Your task to perform on an android device: toggle notifications settings in the gmail app Image 0: 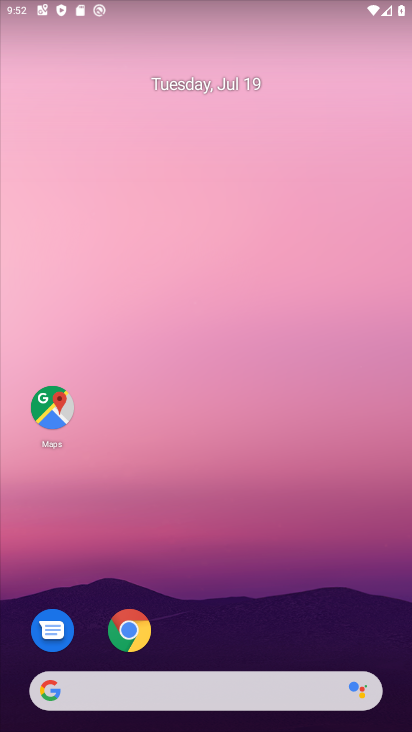
Step 0: drag from (206, 690) to (236, 165)
Your task to perform on an android device: toggle notifications settings in the gmail app Image 1: 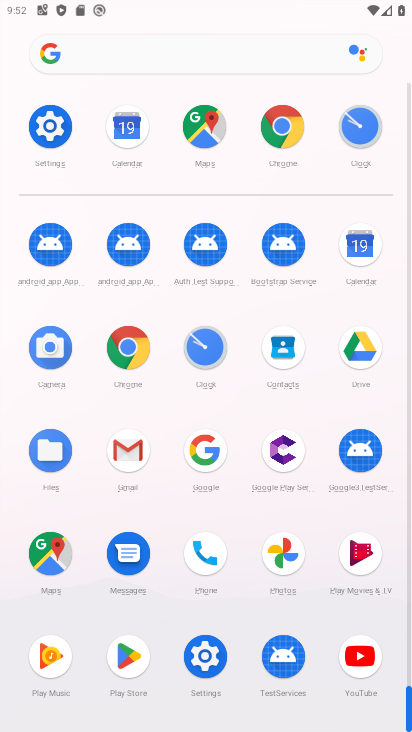
Step 1: click (122, 457)
Your task to perform on an android device: toggle notifications settings in the gmail app Image 2: 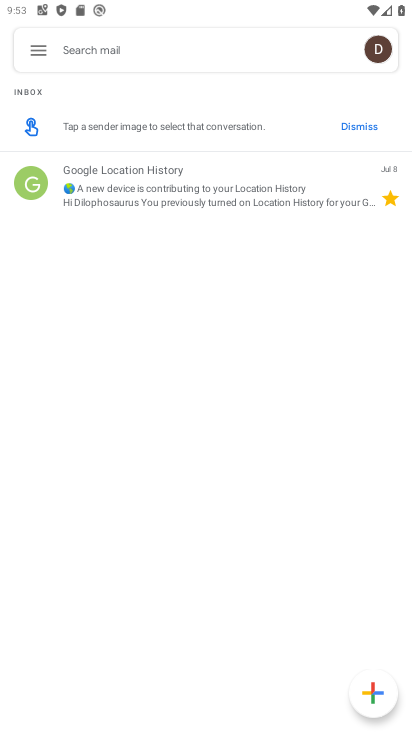
Step 2: click (38, 50)
Your task to perform on an android device: toggle notifications settings in the gmail app Image 3: 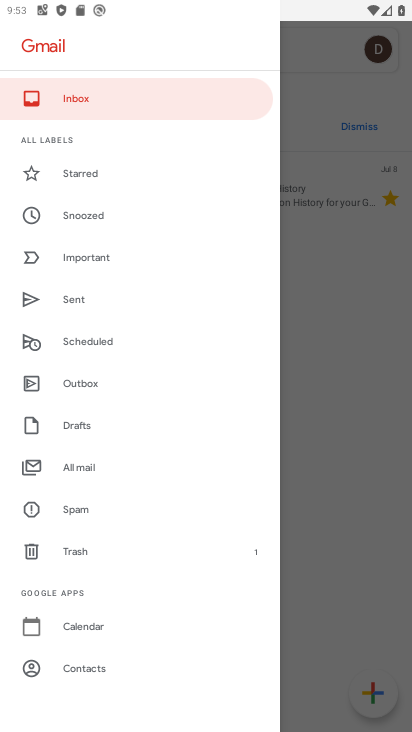
Step 3: drag from (101, 538) to (178, 174)
Your task to perform on an android device: toggle notifications settings in the gmail app Image 4: 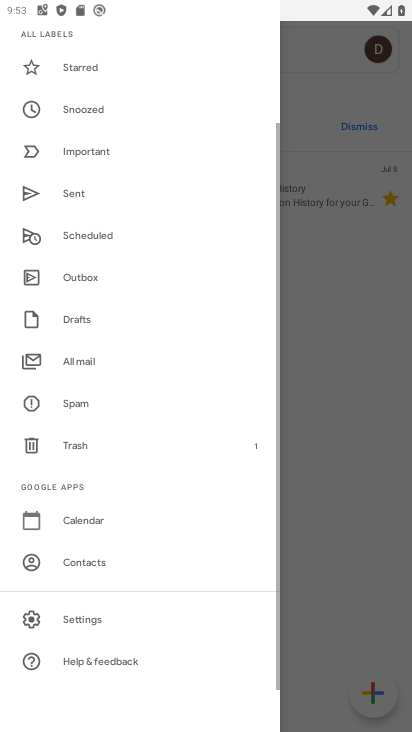
Step 4: click (104, 623)
Your task to perform on an android device: toggle notifications settings in the gmail app Image 5: 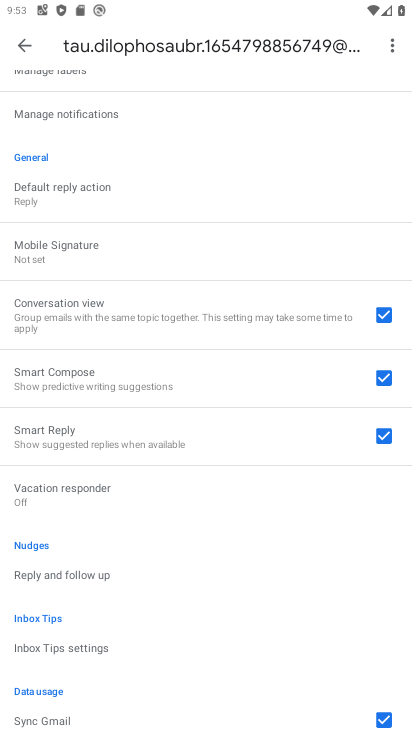
Step 5: click (27, 42)
Your task to perform on an android device: toggle notifications settings in the gmail app Image 6: 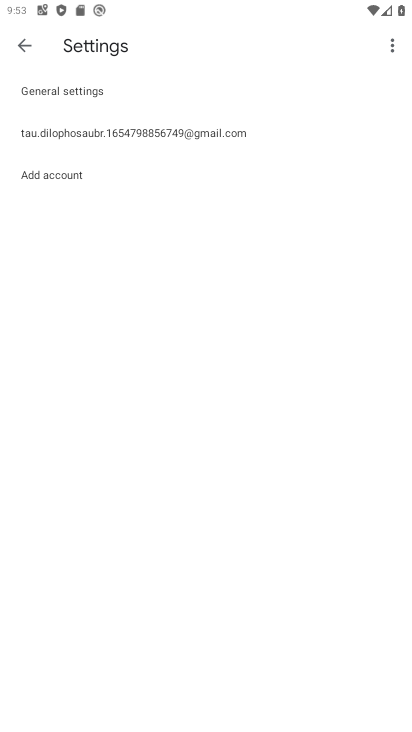
Step 6: click (94, 95)
Your task to perform on an android device: toggle notifications settings in the gmail app Image 7: 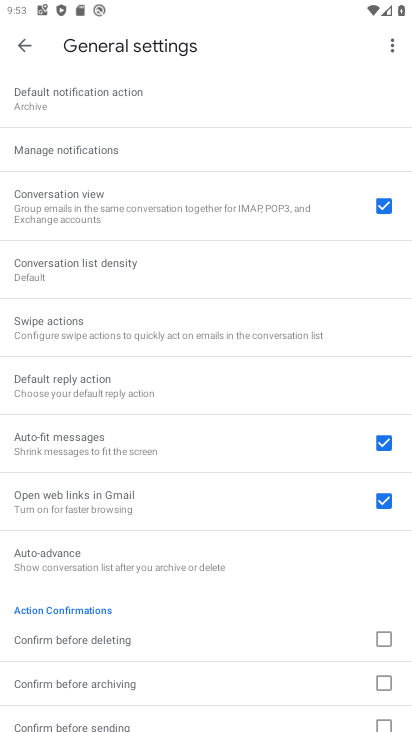
Step 7: click (96, 159)
Your task to perform on an android device: toggle notifications settings in the gmail app Image 8: 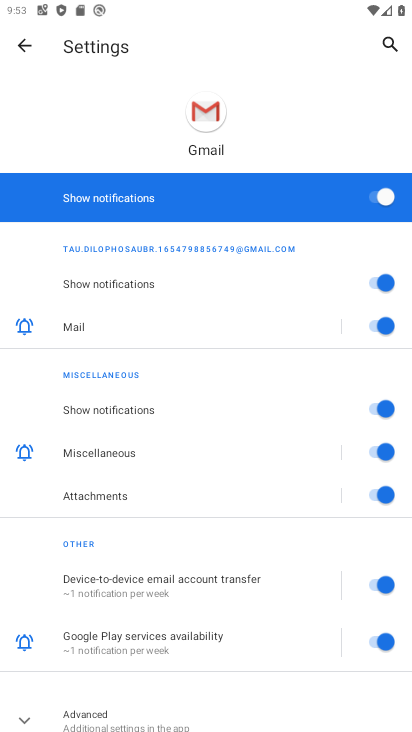
Step 8: click (279, 199)
Your task to perform on an android device: toggle notifications settings in the gmail app Image 9: 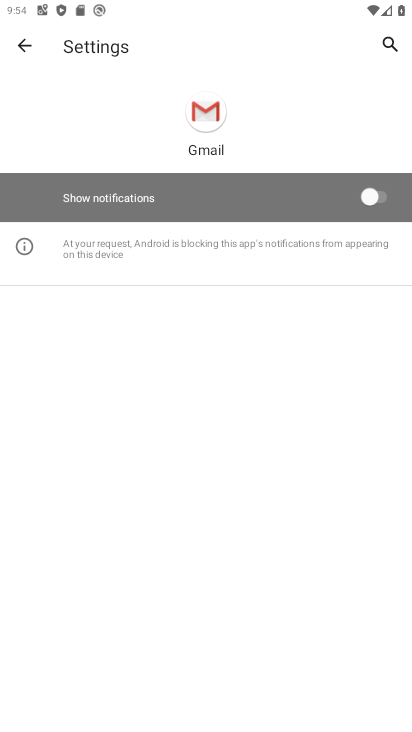
Step 9: task complete